Your task to perform on an android device: Go to Android settings Image 0: 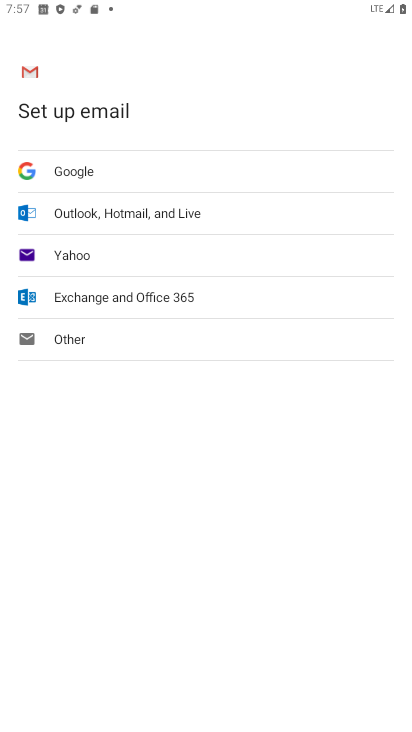
Step 0: press back button
Your task to perform on an android device: Go to Android settings Image 1: 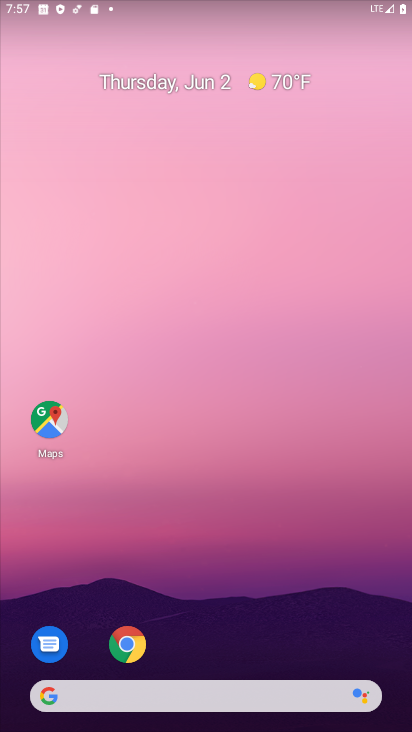
Step 1: drag from (210, 649) to (216, 66)
Your task to perform on an android device: Go to Android settings Image 2: 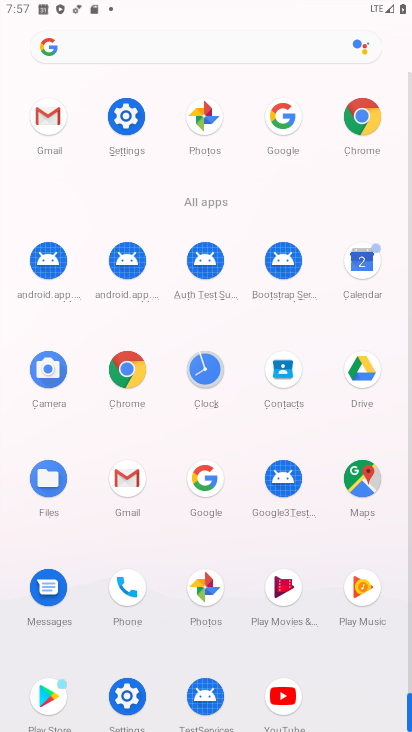
Step 2: click (124, 113)
Your task to perform on an android device: Go to Android settings Image 3: 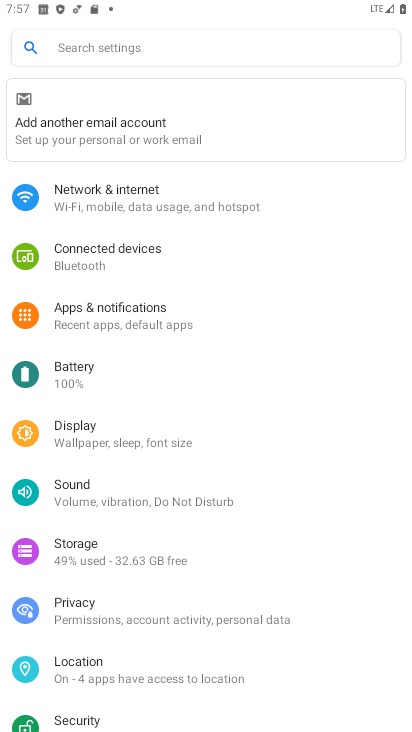
Step 3: task complete